Your task to perform on an android device: Open Google Maps and go to "Timeline" Image 0: 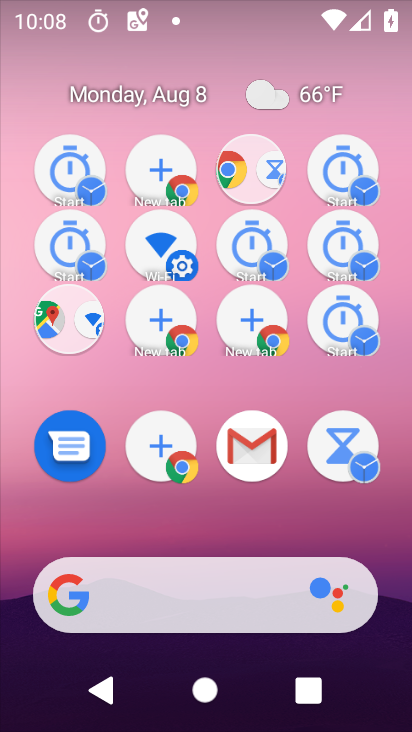
Step 0: drag from (240, 662) to (227, 245)
Your task to perform on an android device: Open Google Maps and go to "Timeline" Image 1: 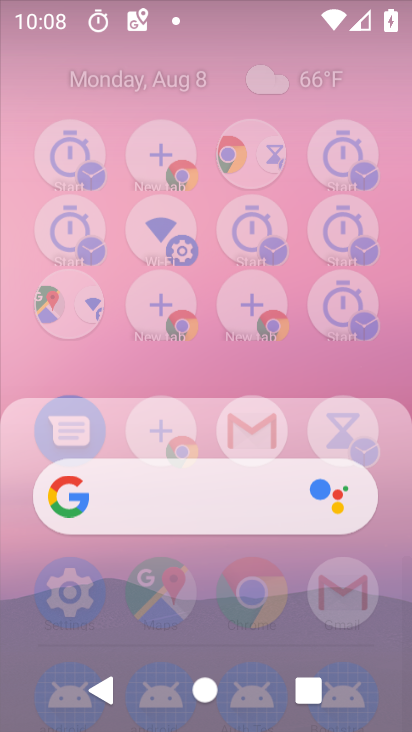
Step 1: drag from (241, 575) to (204, 231)
Your task to perform on an android device: Open Google Maps and go to "Timeline" Image 2: 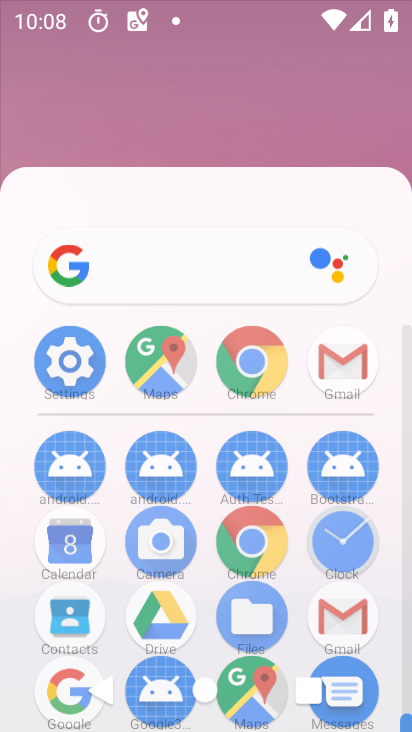
Step 2: drag from (248, 488) to (232, 91)
Your task to perform on an android device: Open Google Maps and go to "Timeline" Image 3: 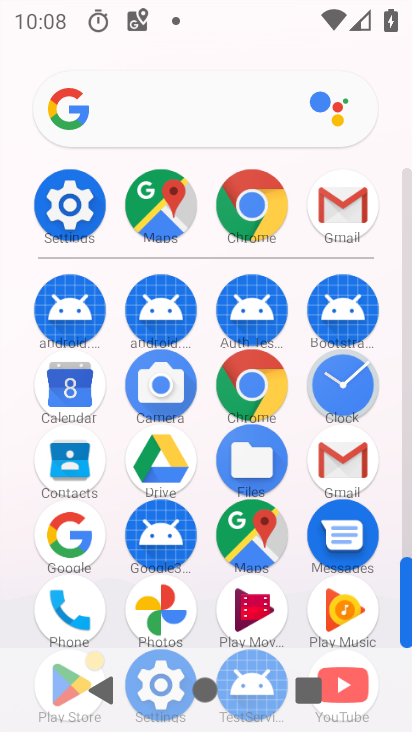
Step 3: drag from (247, 429) to (224, 254)
Your task to perform on an android device: Open Google Maps and go to "Timeline" Image 4: 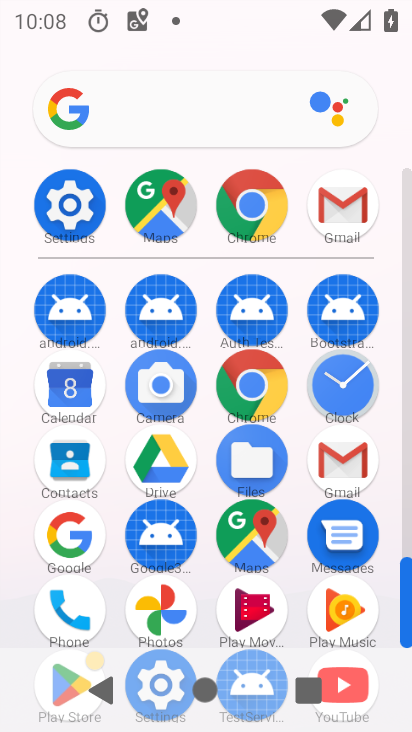
Step 4: click (233, 543)
Your task to perform on an android device: Open Google Maps and go to "Timeline" Image 5: 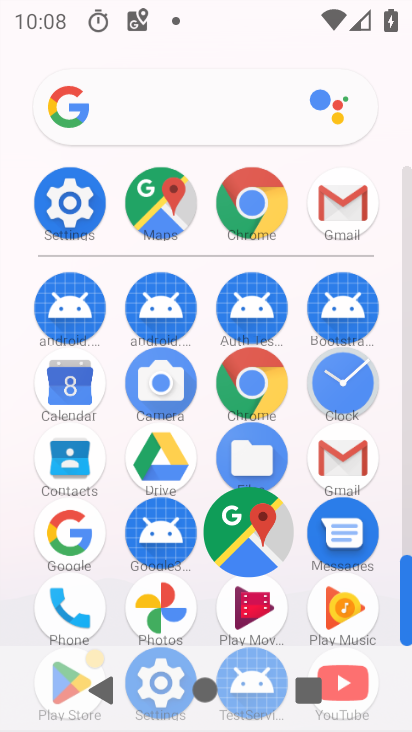
Step 5: click (239, 544)
Your task to perform on an android device: Open Google Maps and go to "Timeline" Image 6: 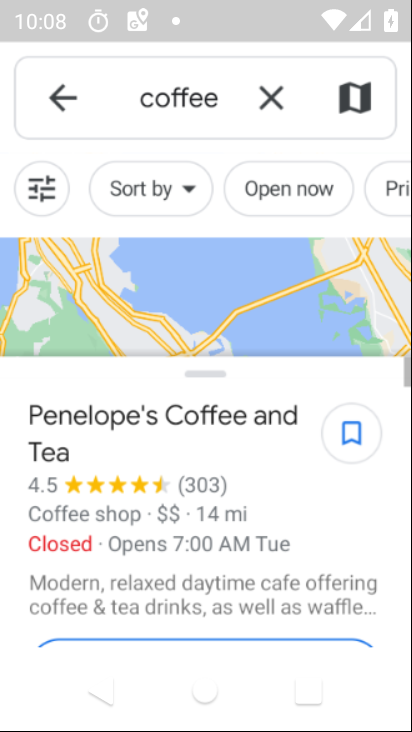
Step 6: click (240, 546)
Your task to perform on an android device: Open Google Maps and go to "Timeline" Image 7: 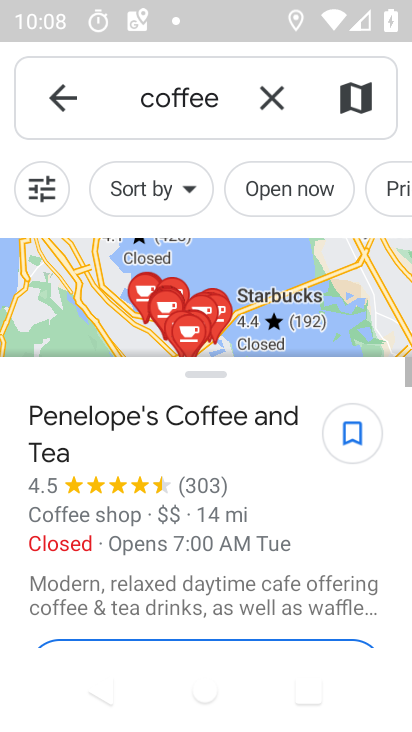
Step 7: click (55, 97)
Your task to perform on an android device: Open Google Maps and go to "Timeline" Image 8: 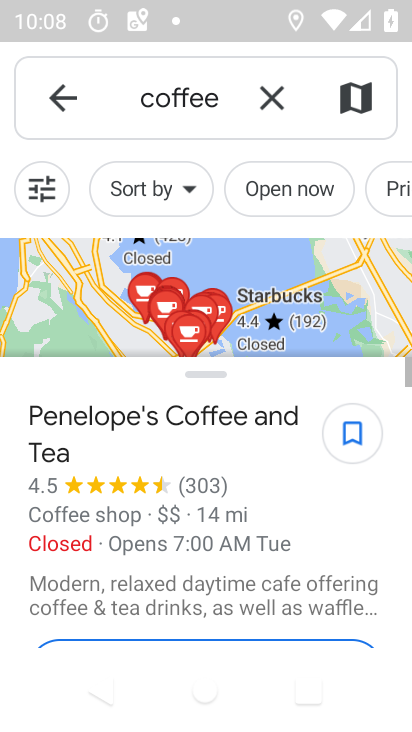
Step 8: click (55, 97)
Your task to perform on an android device: Open Google Maps and go to "Timeline" Image 9: 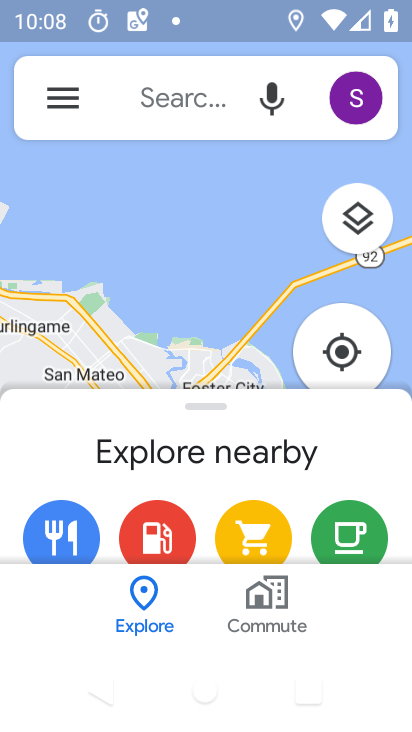
Step 9: click (85, 106)
Your task to perform on an android device: Open Google Maps and go to "Timeline" Image 10: 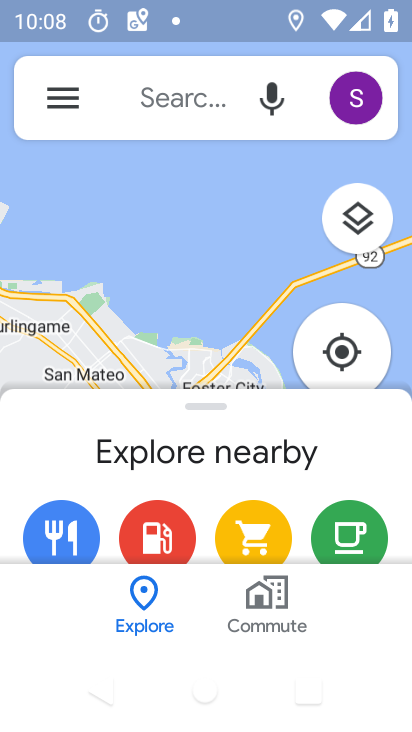
Step 10: click (85, 106)
Your task to perform on an android device: Open Google Maps and go to "Timeline" Image 11: 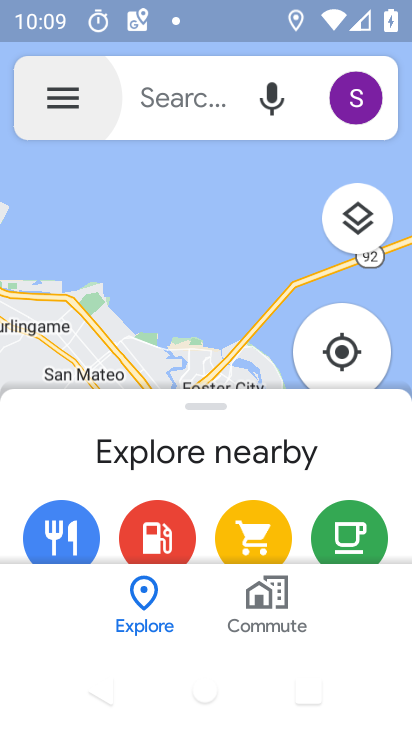
Step 11: click (68, 110)
Your task to perform on an android device: Open Google Maps and go to "Timeline" Image 12: 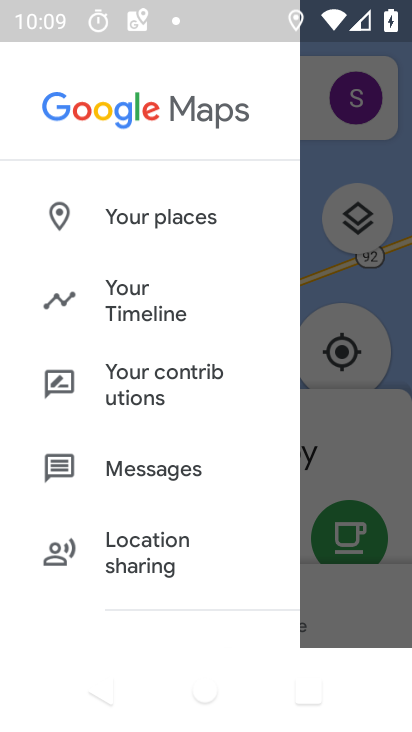
Step 12: click (136, 307)
Your task to perform on an android device: Open Google Maps and go to "Timeline" Image 13: 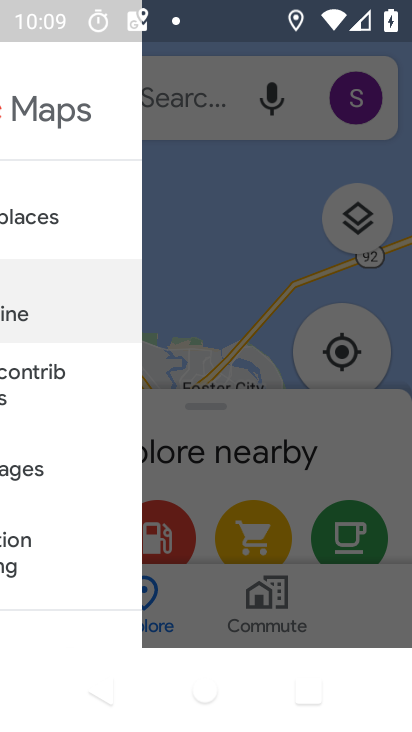
Step 13: click (136, 309)
Your task to perform on an android device: Open Google Maps and go to "Timeline" Image 14: 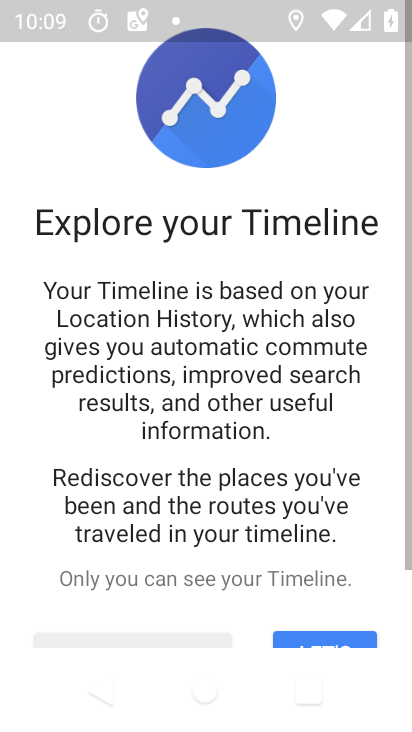
Step 14: click (140, 311)
Your task to perform on an android device: Open Google Maps and go to "Timeline" Image 15: 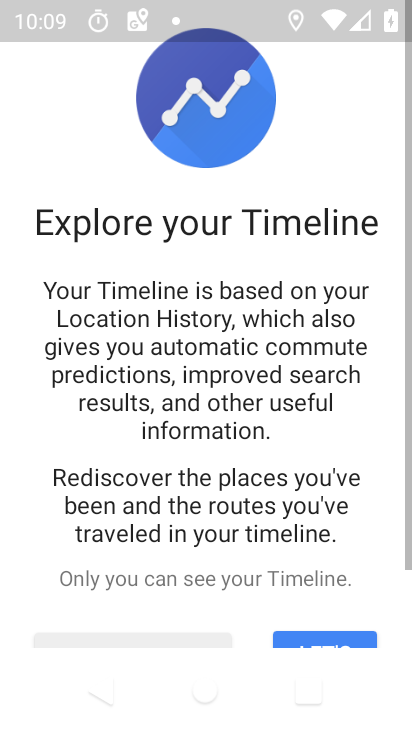
Step 15: click (142, 311)
Your task to perform on an android device: Open Google Maps and go to "Timeline" Image 16: 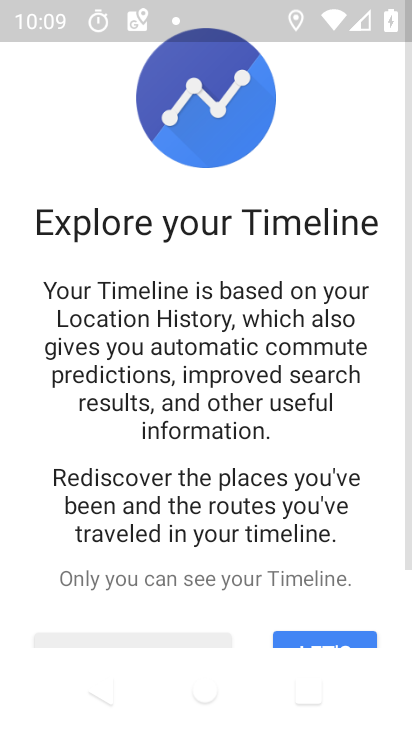
Step 16: drag from (227, 446) to (192, 195)
Your task to perform on an android device: Open Google Maps and go to "Timeline" Image 17: 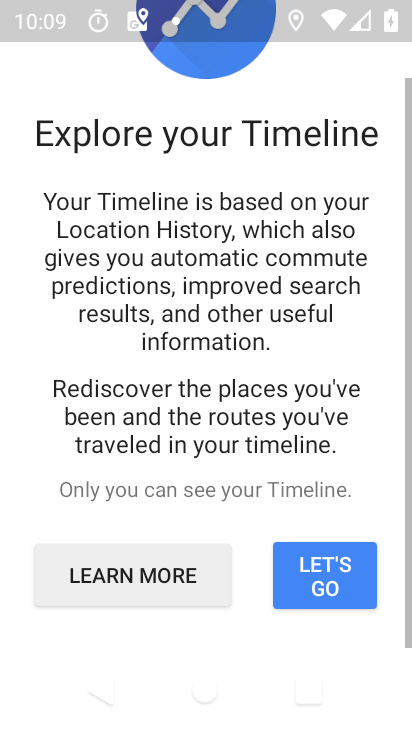
Step 17: drag from (220, 456) to (155, 212)
Your task to perform on an android device: Open Google Maps and go to "Timeline" Image 18: 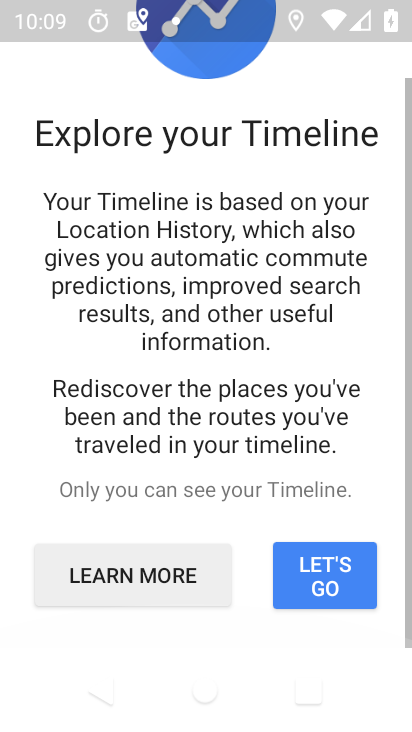
Step 18: drag from (189, 447) to (153, 216)
Your task to perform on an android device: Open Google Maps and go to "Timeline" Image 19: 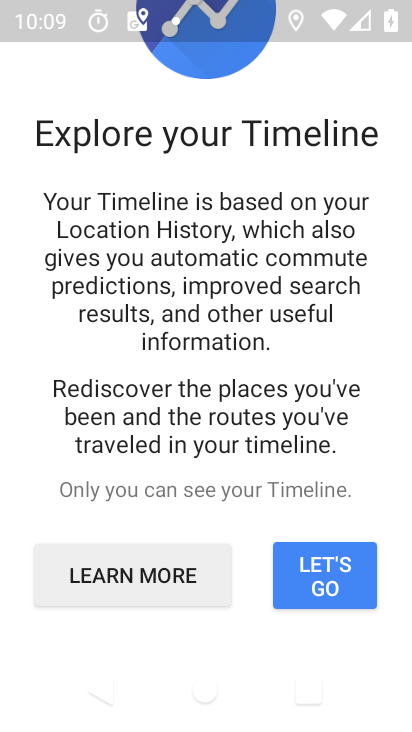
Step 19: click (310, 571)
Your task to perform on an android device: Open Google Maps and go to "Timeline" Image 20: 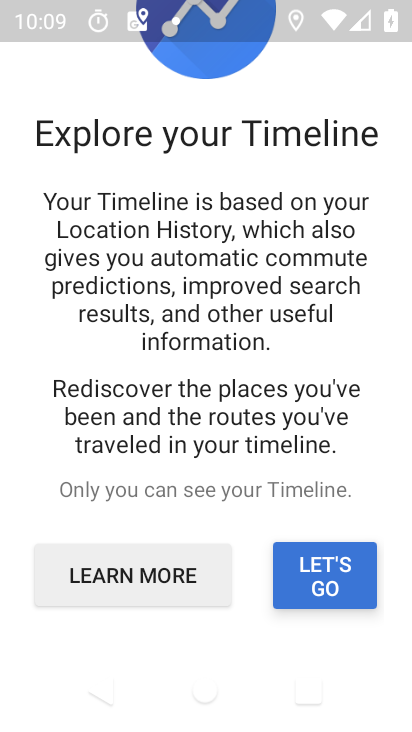
Step 20: click (319, 574)
Your task to perform on an android device: Open Google Maps and go to "Timeline" Image 21: 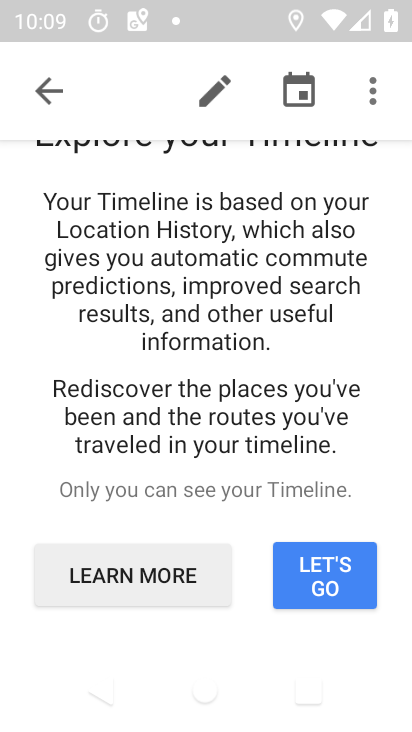
Step 21: click (323, 578)
Your task to perform on an android device: Open Google Maps and go to "Timeline" Image 22: 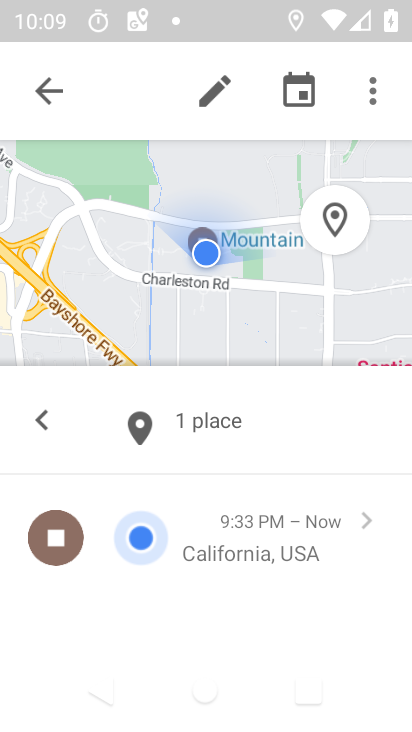
Step 22: task complete